Your task to perform on an android device: toggle show notifications on the lock screen Image 0: 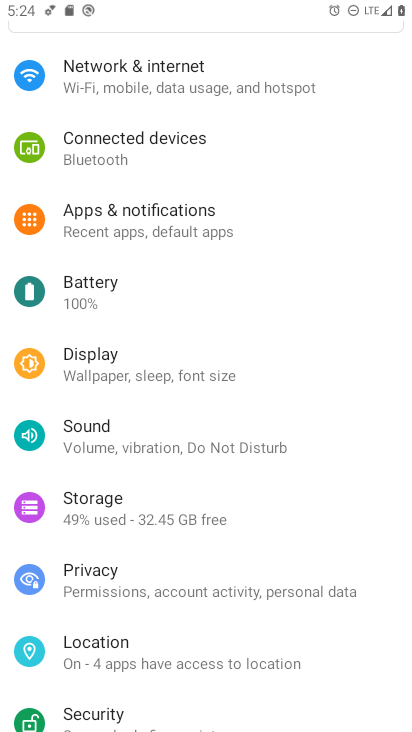
Step 0: click (197, 220)
Your task to perform on an android device: toggle show notifications on the lock screen Image 1: 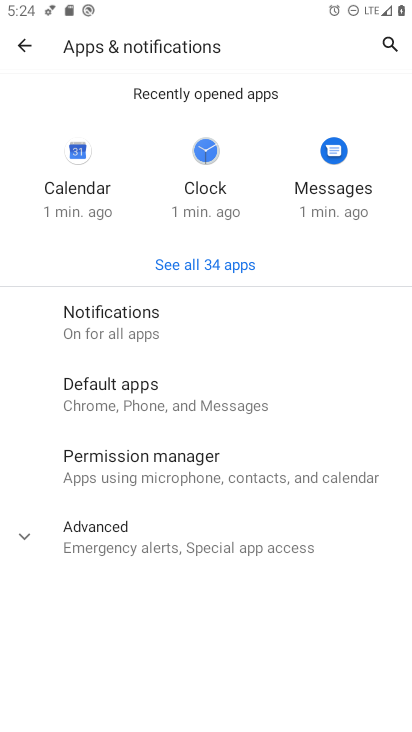
Step 1: click (192, 329)
Your task to perform on an android device: toggle show notifications on the lock screen Image 2: 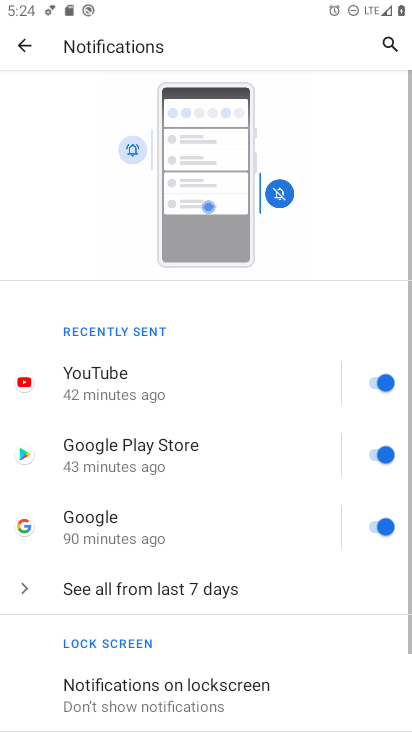
Step 2: click (224, 710)
Your task to perform on an android device: toggle show notifications on the lock screen Image 3: 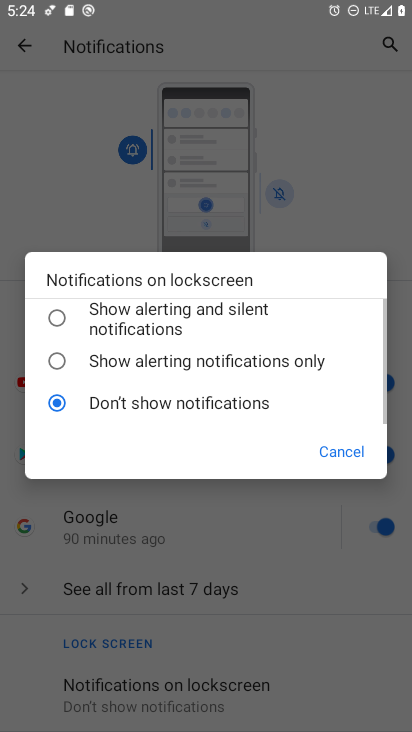
Step 3: click (146, 309)
Your task to perform on an android device: toggle show notifications on the lock screen Image 4: 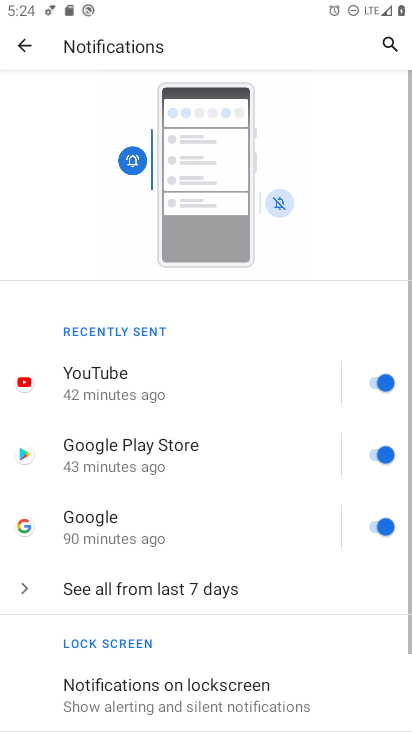
Step 4: task complete